Your task to perform on an android device: What's on my calendar tomorrow? Image 0: 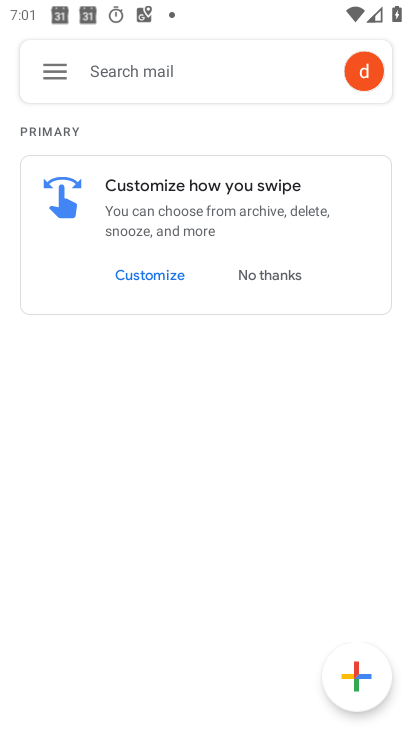
Step 0: press home button
Your task to perform on an android device: What's on my calendar tomorrow? Image 1: 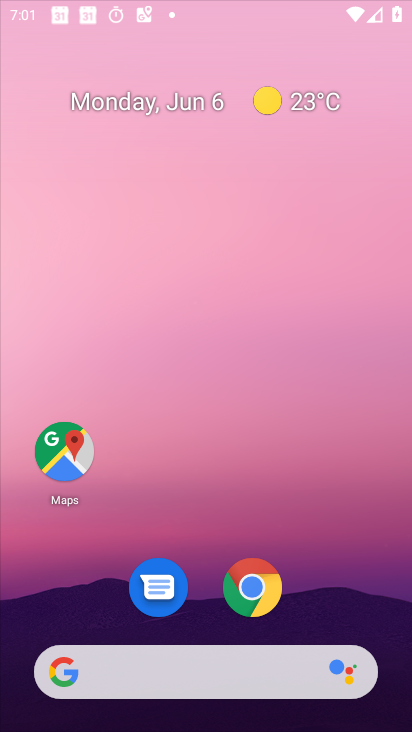
Step 1: drag from (387, 680) to (276, 53)
Your task to perform on an android device: What's on my calendar tomorrow? Image 2: 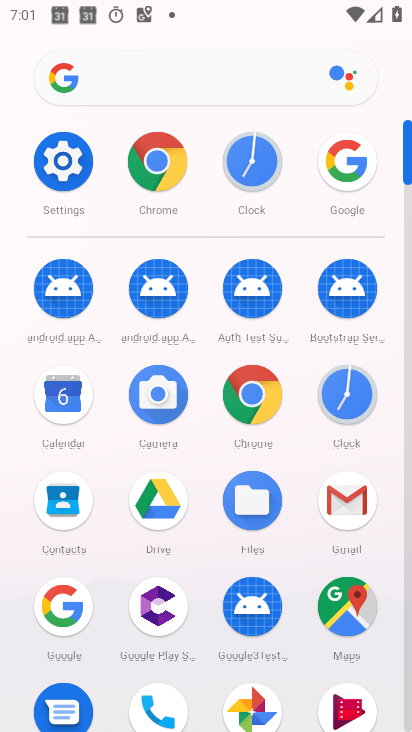
Step 2: click (56, 396)
Your task to perform on an android device: What's on my calendar tomorrow? Image 3: 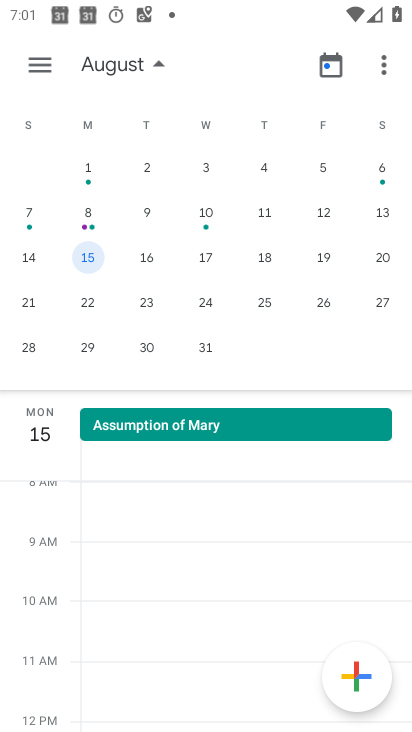
Step 3: task complete